Your task to perform on an android device: Open Wikipedia Image 0: 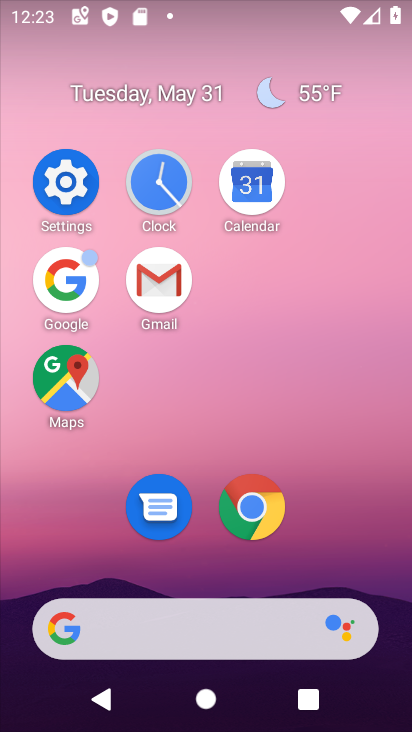
Step 0: click (246, 506)
Your task to perform on an android device: Open Wikipedia Image 1: 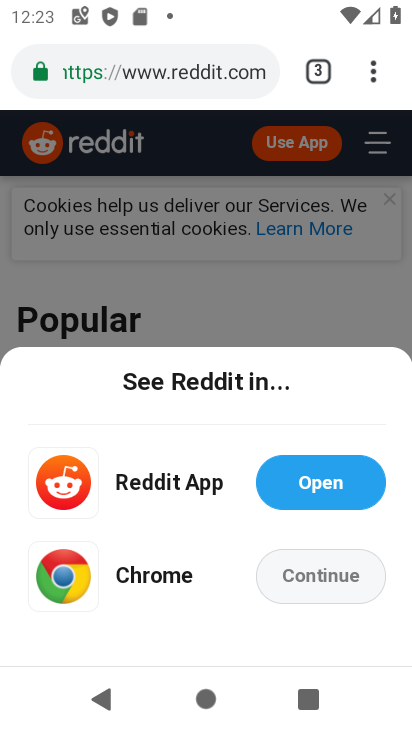
Step 1: click (325, 65)
Your task to perform on an android device: Open Wikipedia Image 2: 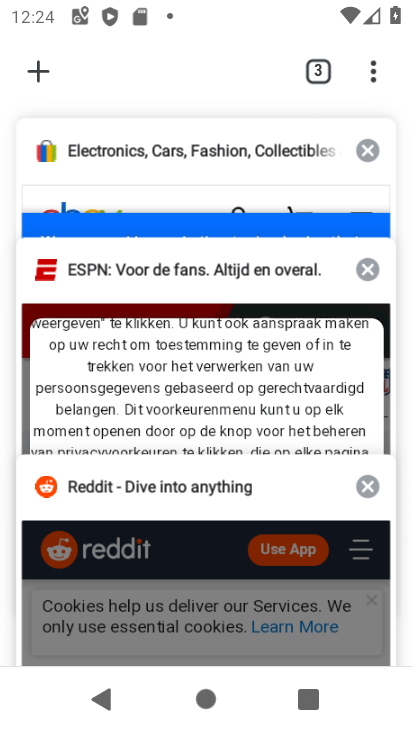
Step 2: click (37, 77)
Your task to perform on an android device: Open Wikipedia Image 3: 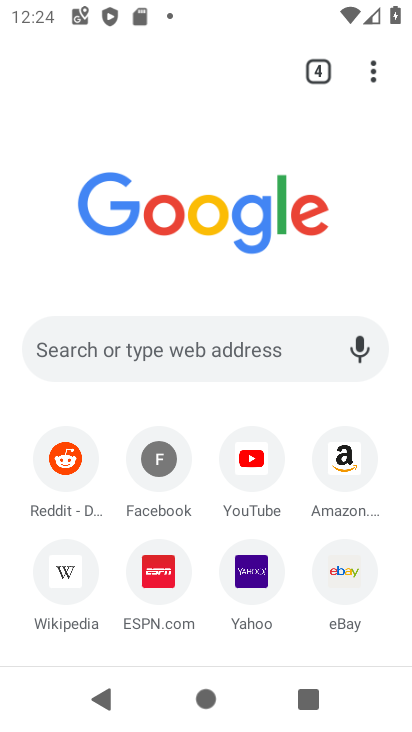
Step 3: click (67, 575)
Your task to perform on an android device: Open Wikipedia Image 4: 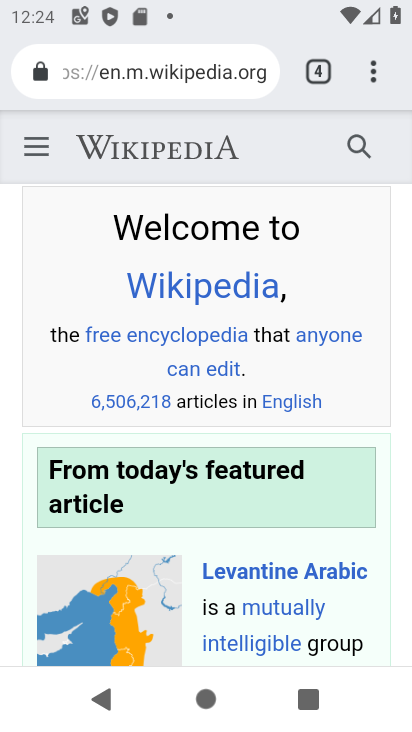
Step 4: task complete